Your task to perform on an android device: Check the weather Image 0: 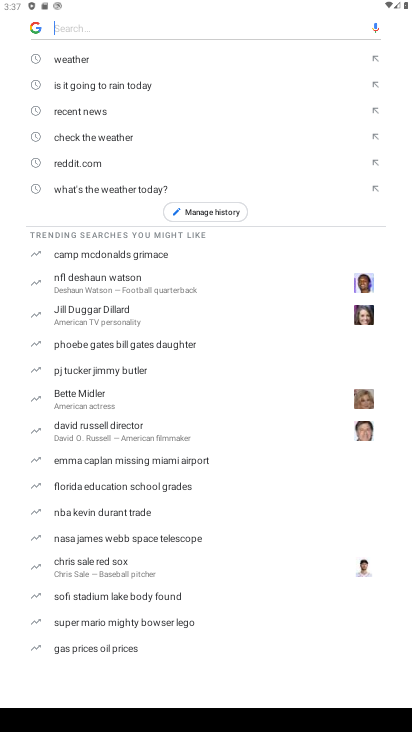
Step 0: click (66, 56)
Your task to perform on an android device: Check the weather Image 1: 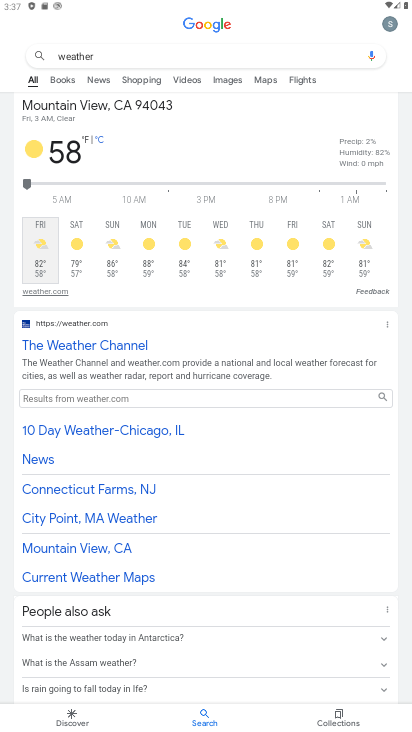
Step 1: task complete